Your task to perform on an android device: move an email to a new category in the gmail app Image 0: 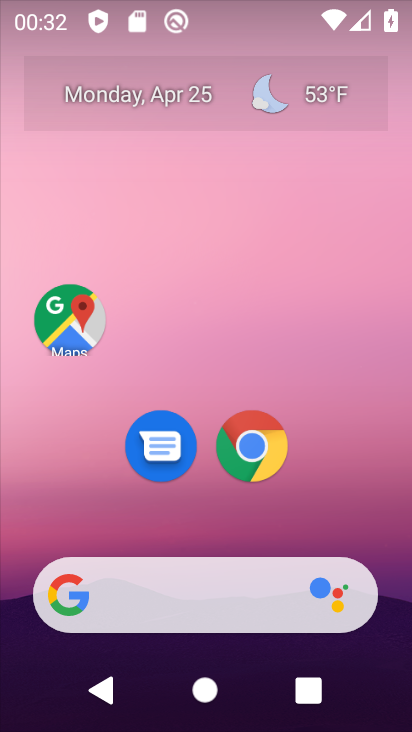
Step 0: drag from (213, 544) to (301, 2)
Your task to perform on an android device: move an email to a new category in the gmail app Image 1: 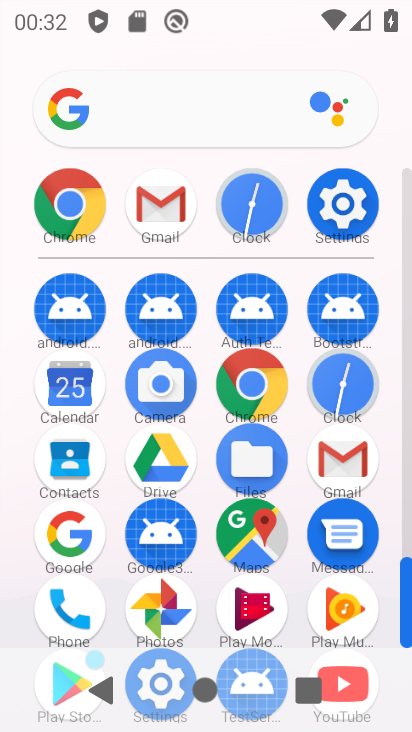
Step 1: click (347, 456)
Your task to perform on an android device: move an email to a new category in the gmail app Image 2: 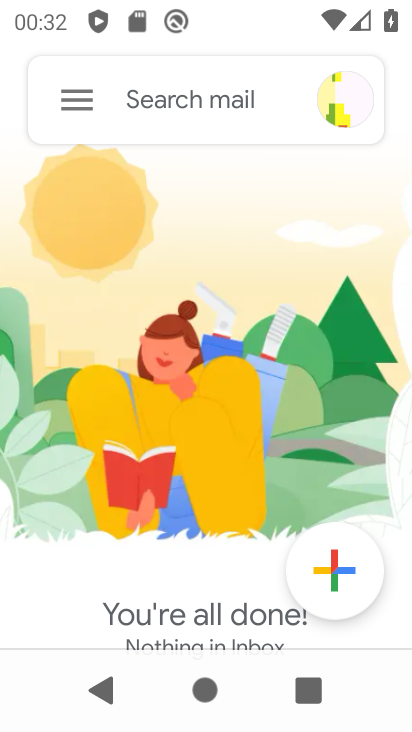
Step 2: click (85, 99)
Your task to perform on an android device: move an email to a new category in the gmail app Image 3: 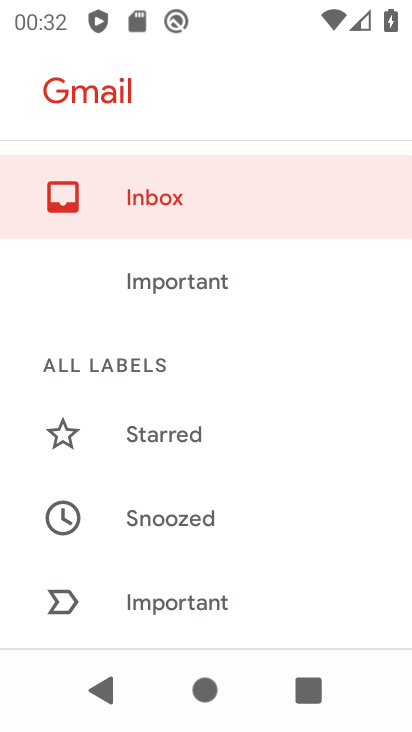
Step 3: drag from (179, 512) to (227, 42)
Your task to perform on an android device: move an email to a new category in the gmail app Image 4: 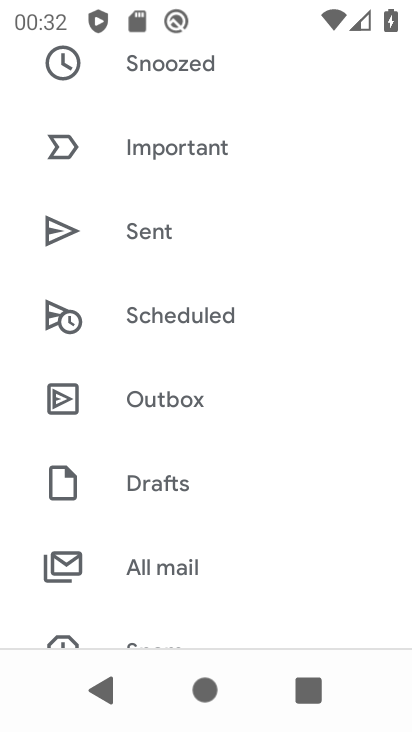
Step 4: click (148, 568)
Your task to perform on an android device: move an email to a new category in the gmail app Image 5: 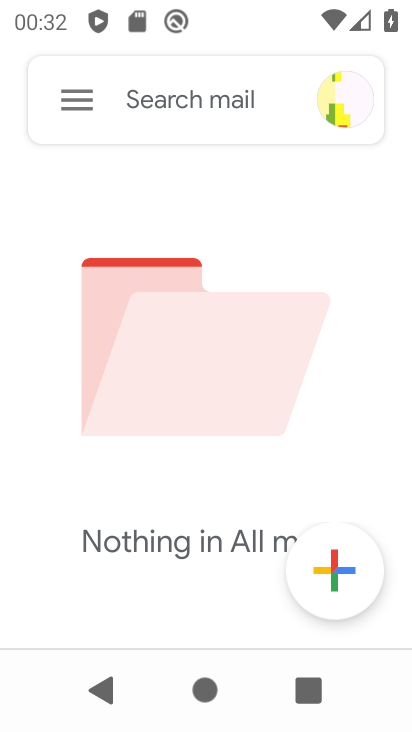
Step 5: task complete